Your task to perform on an android device: turn off picture-in-picture Image 0: 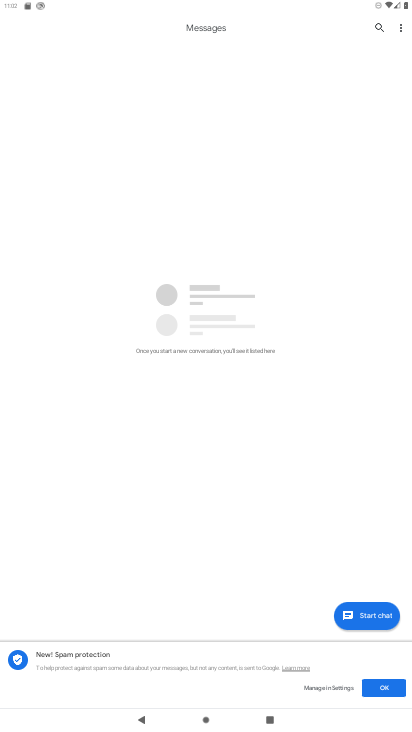
Step 0: press home button
Your task to perform on an android device: turn off picture-in-picture Image 1: 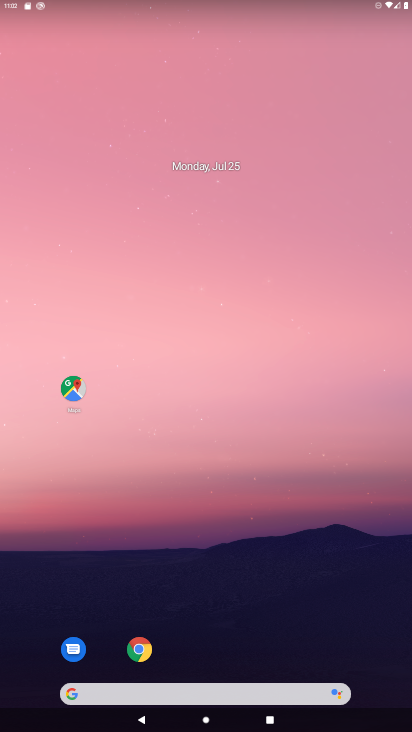
Step 1: drag from (370, 669) to (343, 170)
Your task to perform on an android device: turn off picture-in-picture Image 2: 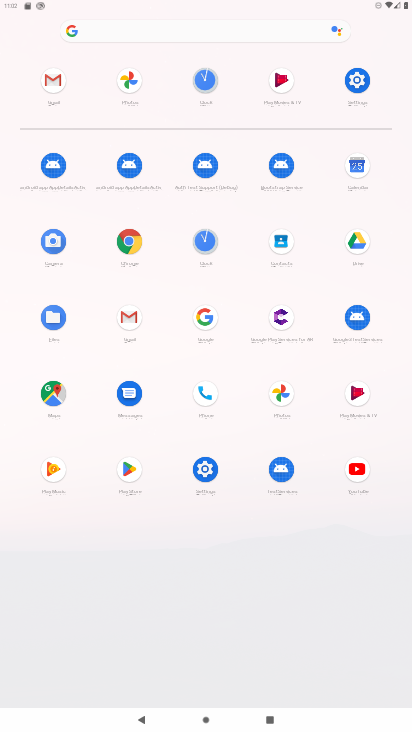
Step 2: click (206, 470)
Your task to perform on an android device: turn off picture-in-picture Image 3: 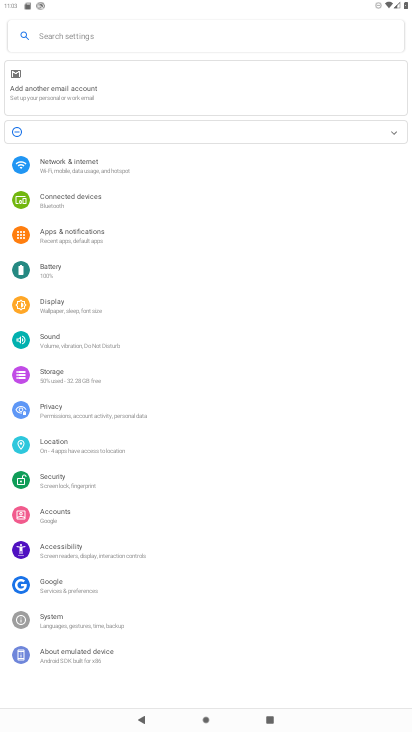
Step 3: click (63, 229)
Your task to perform on an android device: turn off picture-in-picture Image 4: 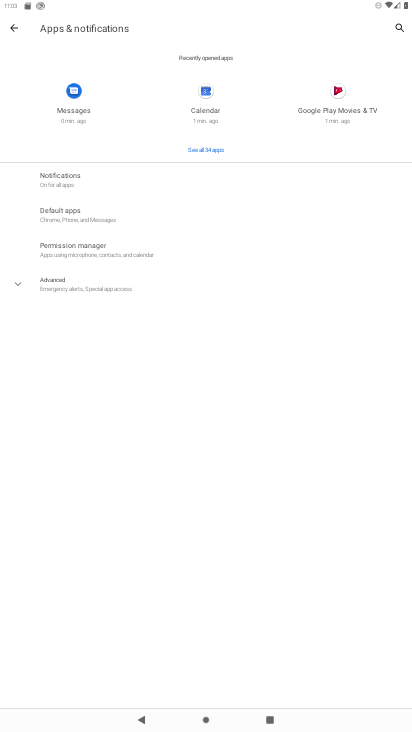
Step 4: click (20, 282)
Your task to perform on an android device: turn off picture-in-picture Image 5: 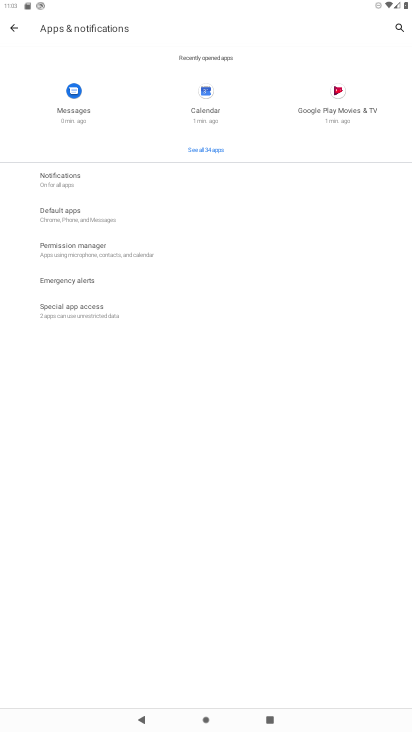
Step 5: click (84, 305)
Your task to perform on an android device: turn off picture-in-picture Image 6: 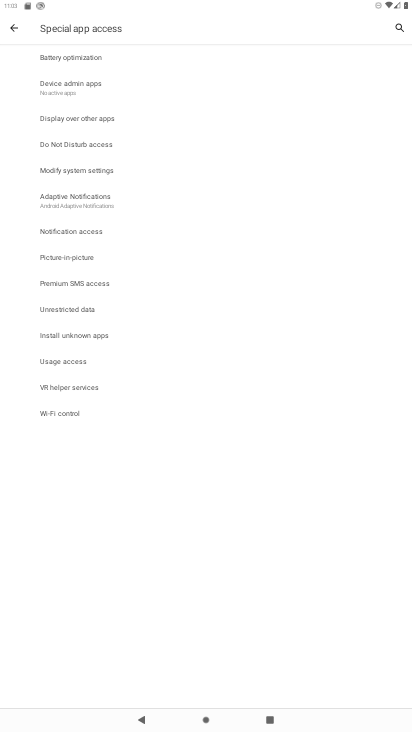
Step 6: click (55, 258)
Your task to perform on an android device: turn off picture-in-picture Image 7: 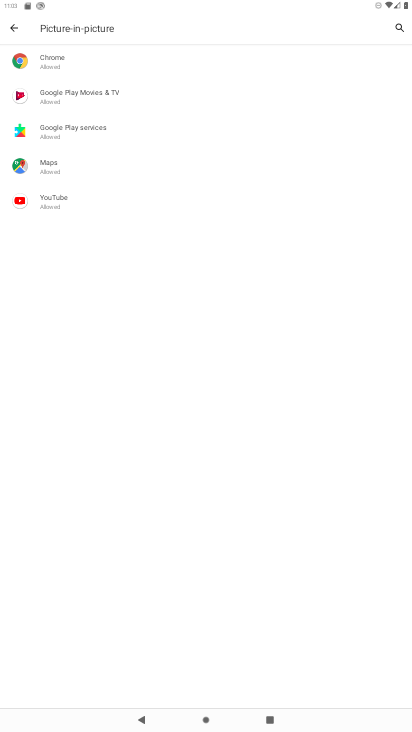
Step 7: click (57, 199)
Your task to perform on an android device: turn off picture-in-picture Image 8: 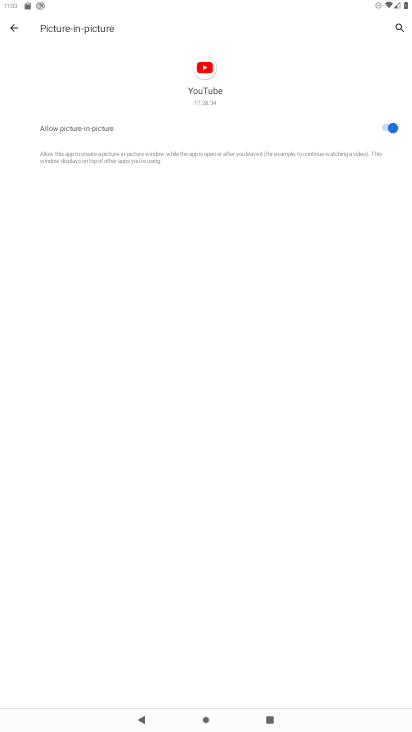
Step 8: click (378, 123)
Your task to perform on an android device: turn off picture-in-picture Image 9: 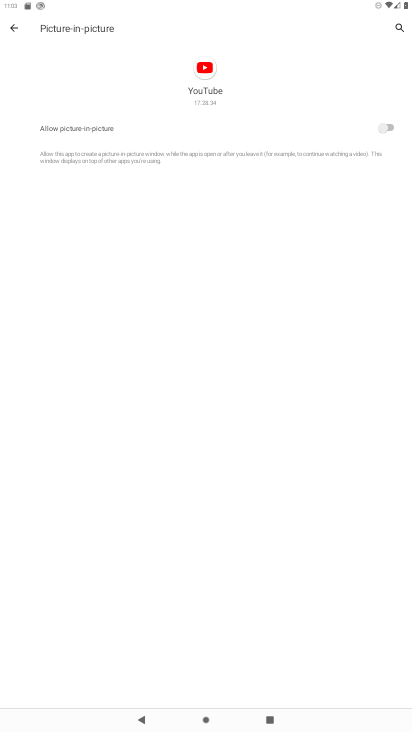
Step 9: task complete